Your task to perform on an android device: Play the last video I watched on Youtube Image 0: 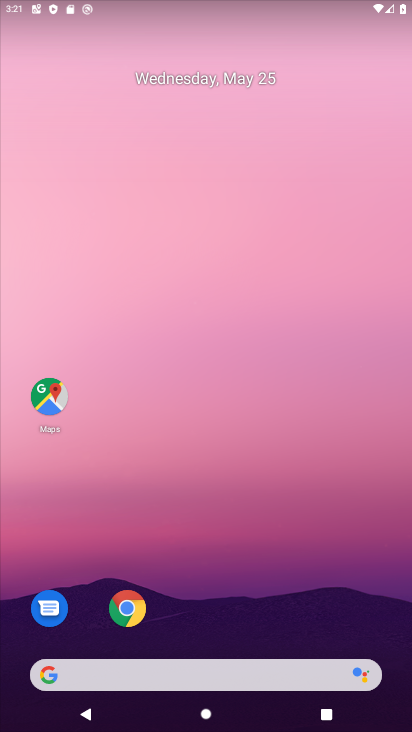
Step 0: drag from (181, 632) to (332, 23)
Your task to perform on an android device: Play the last video I watched on Youtube Image 1: 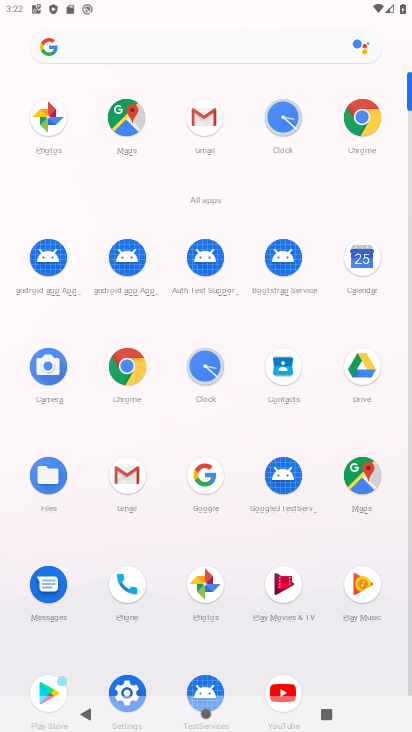
Step 1: click (279, 692)
Your task to perform on an android device: Play the last video I watched on Youtube Image 2: 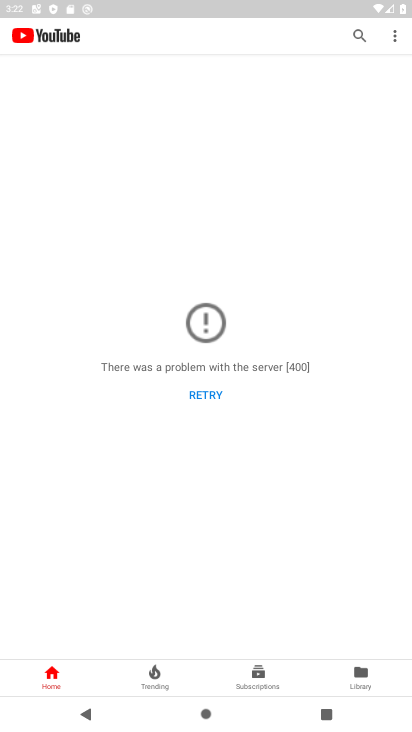
Step 2: click (370, 681)
Your task to perform on an android device: Play the last video I watched on Youtube Image 3: 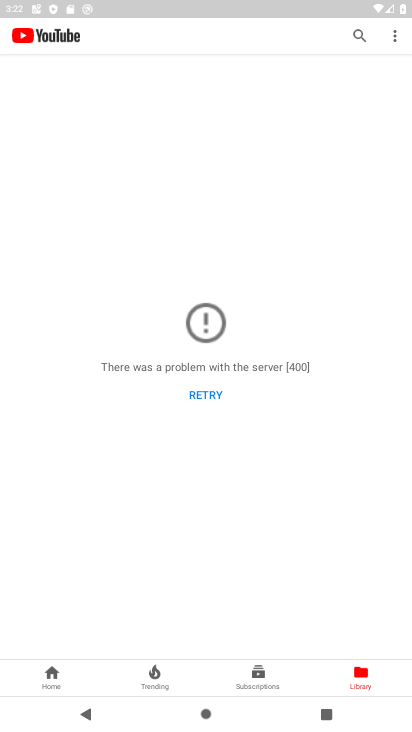
Step 3: click (198, 396)
Your task to perform on an android device: Play the last video I watched on Youtube Image 4: 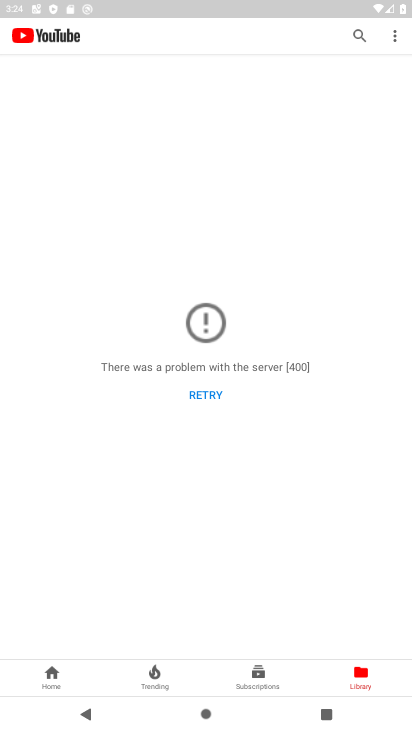
Step 4: click (198, 396)
Your task to perform on an android device: Play the last video I watched on Youtube Image 5: 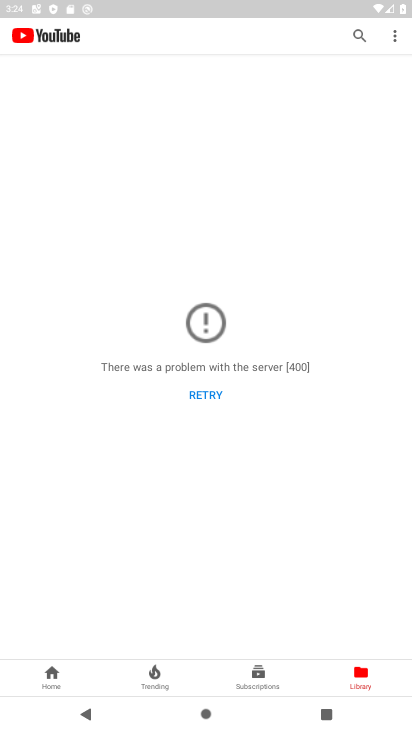
Step 5: task complete